Your task to perform on an android device: turn on airplane mode Image 0: 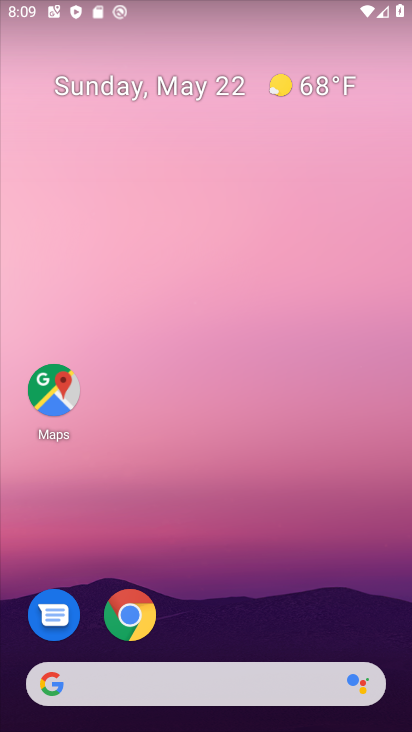
Step 0: drag from (224, 652) to (113, 70)
Your task to perform on an android device: turn on airplane mode Image 1: 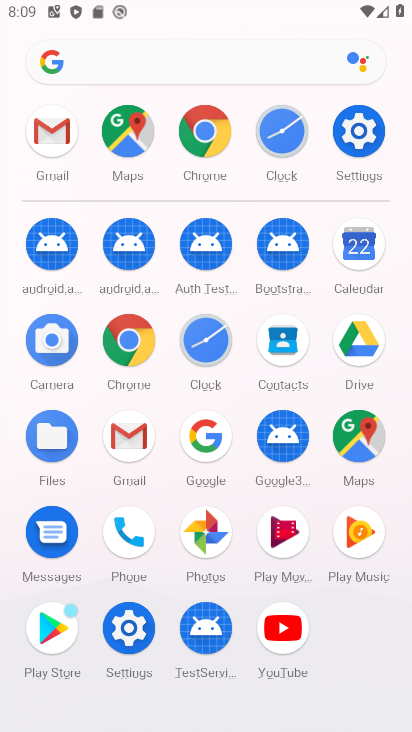
Step 1: click (347, 128)
Your task to perform on an android device: turn on airplane mode Image 2: 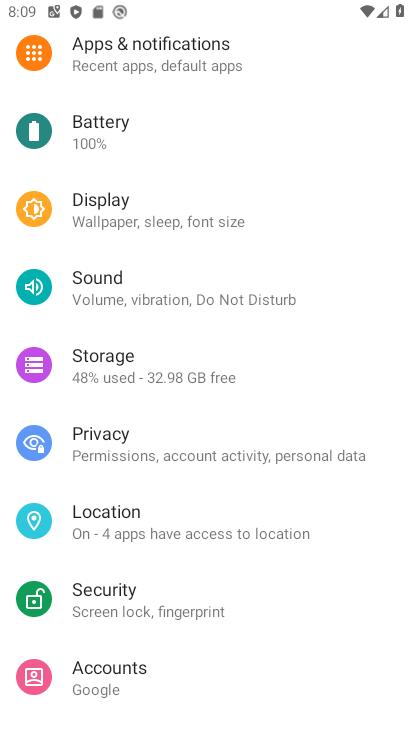
Step 2: drag from (347, 128) to (193, 698)
Your task to perform on an android device: turn on airplane mode Image 3: 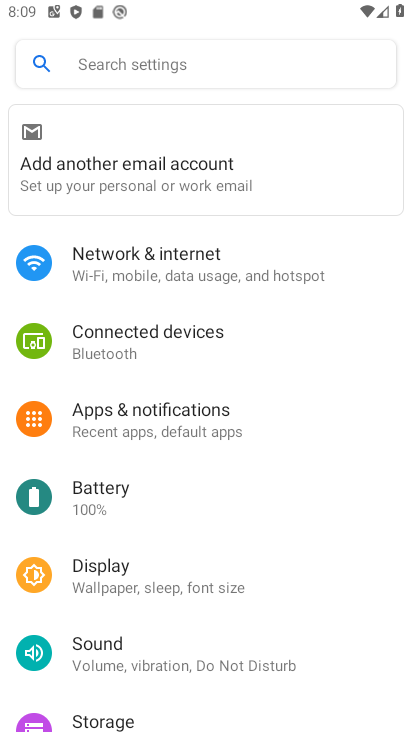
Step 3: click (124, 247)
Your task to perform on an android device: turn on airplane mode Image 4: 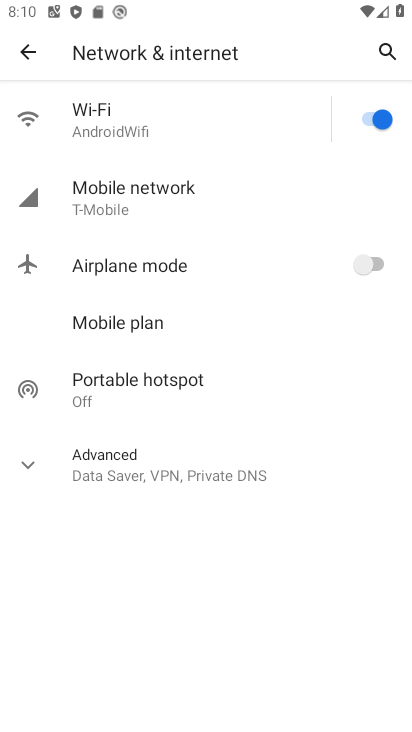
Step 4: click (364, 263)
Your task to perform on an android device: turn on airplane mode Image 5: 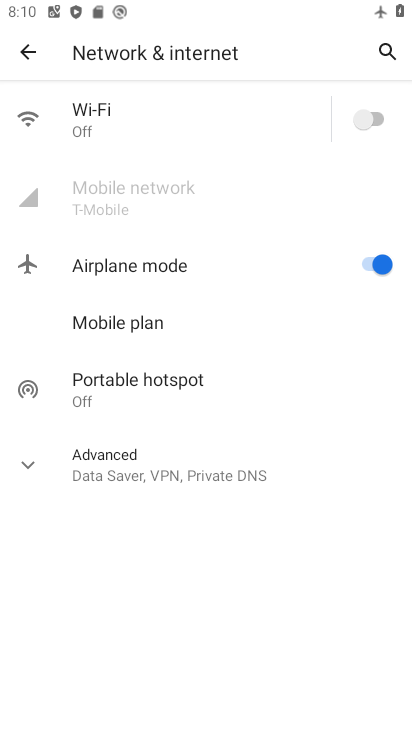
Step 5: task complete